Your task to perform on an android device: Search for sushi restaurants on Maps Image 0: 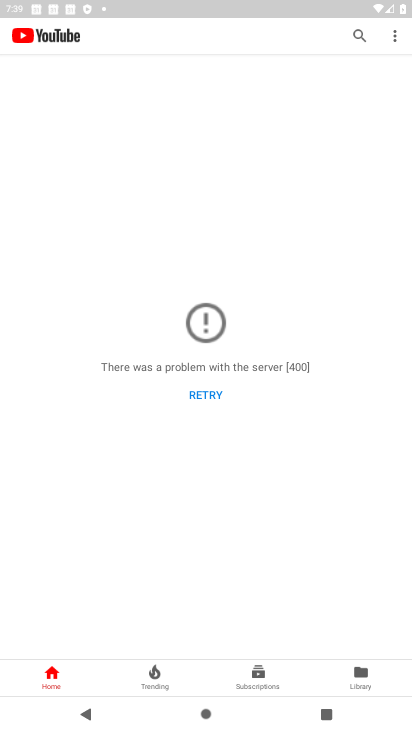
Step 0: press home button
Your task to perform on an android device: Search for sushi restaurants on Maps Image 1: 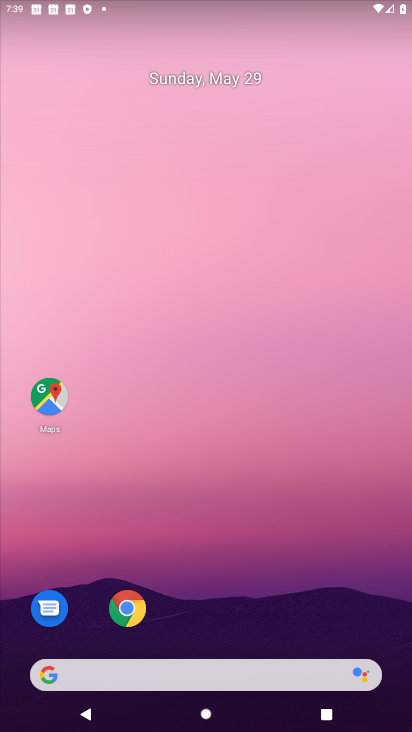
Step 1: click (55, 394)
Your task to perform on an android device: Search for sushi restaurants on Maps Image 2: 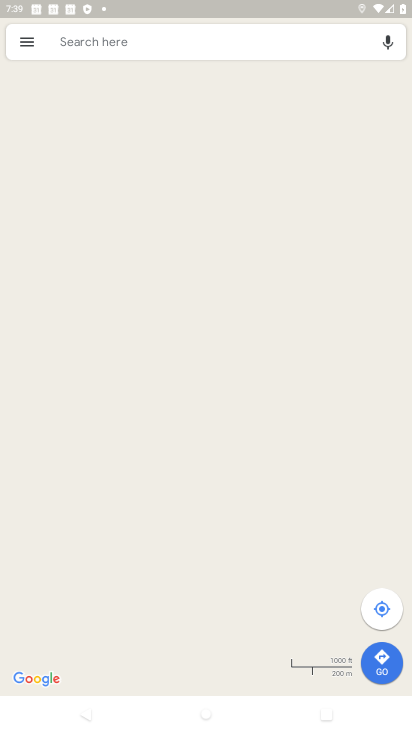
Step 2: click (149, 40)
Your task to perform on an android device: Search for sushi restaurants on Maps Image 3: 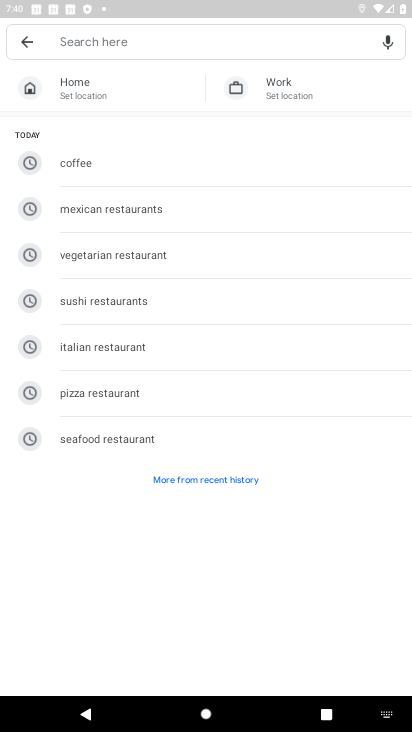
Step 3: type "sushi "
Your task to perform on an android device: Search for sushi restaurants on Maps Image 4: 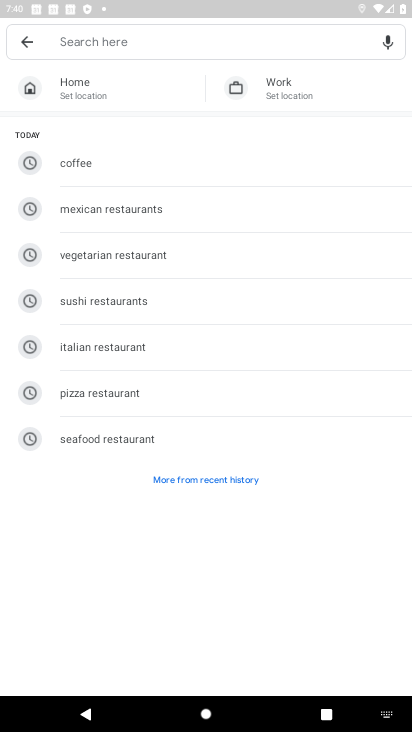
Step 4: click (131, 303)
Your task to perform on an android device: Search for sushi restaurants on Maps Image 5: 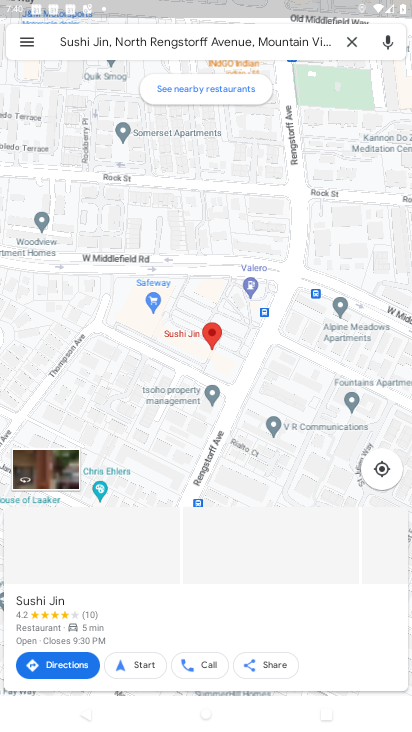
Step 5: task complete